Your task to perform on an android device: Open wifi settings Image 0: 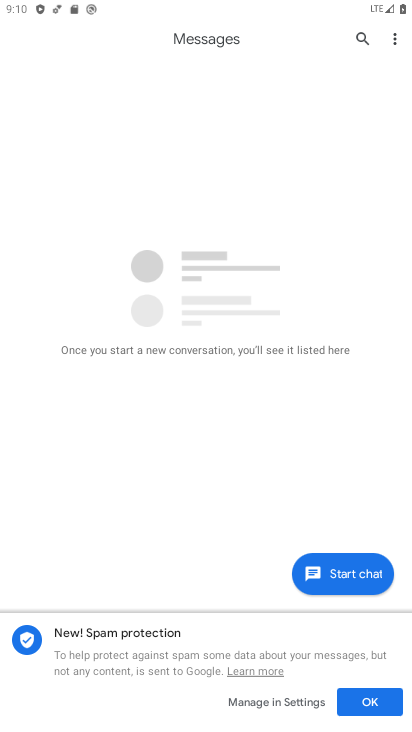
Step 0: press home button
Your task to perform on an android device: Open wifi settings Image 1: 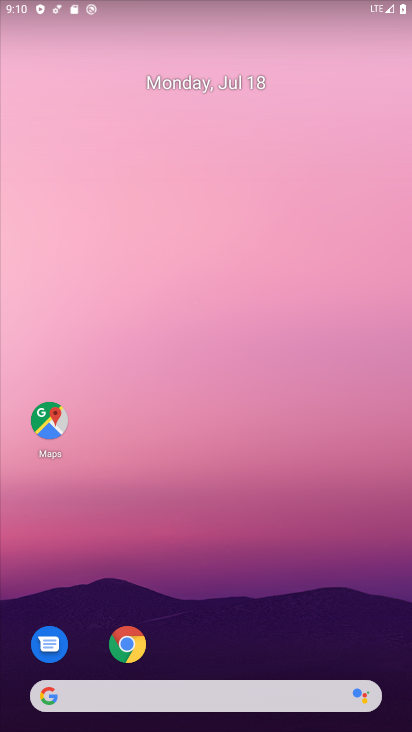
Step 1: drag from (346, 591) to (368, 203)
Your task to perform on an android device: Open wifi settings Image 2: 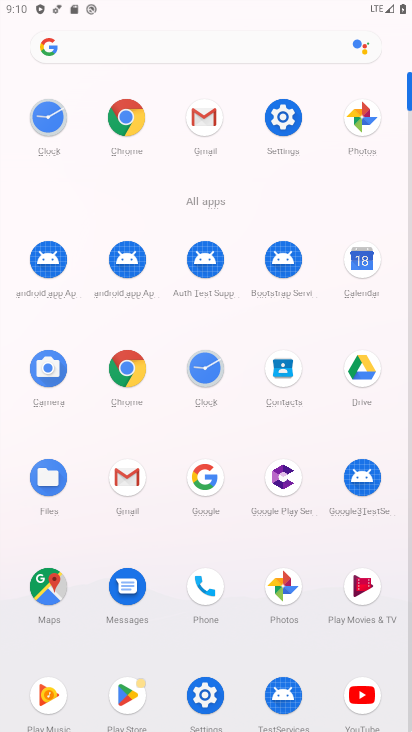
Step 2: click (287, 120)
Your task to perform on an android device: Open wifi settings Image 3: 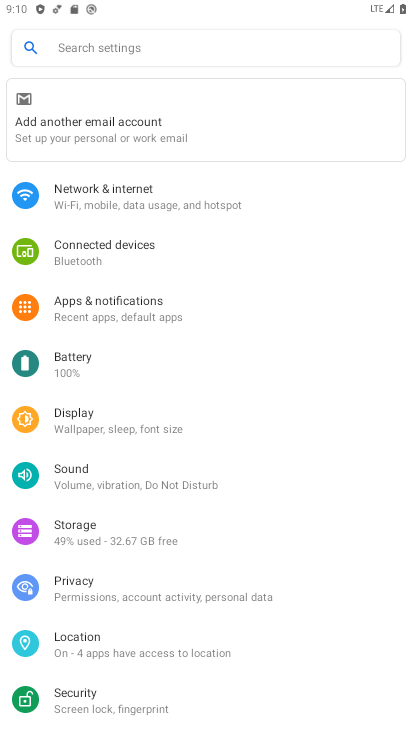
Step 3: drag from (316, 520) to (331, 429)
Your task to perform on an android device: Open wifi settings Image 4: 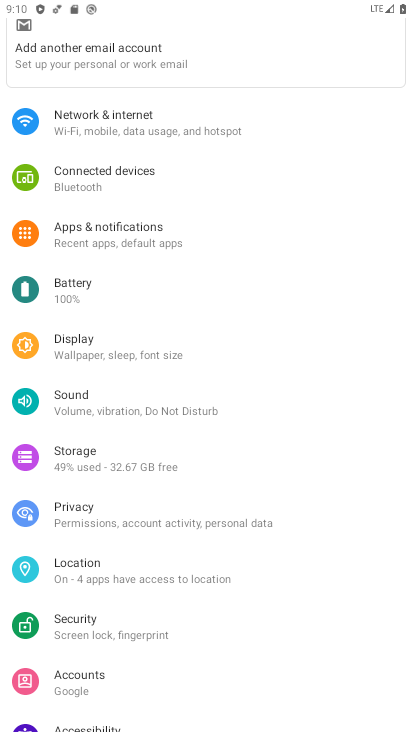
Step 4: drag from (316, 608) to (330, 490)
Your task to perform on an android device: Open wifi settings Image 5: 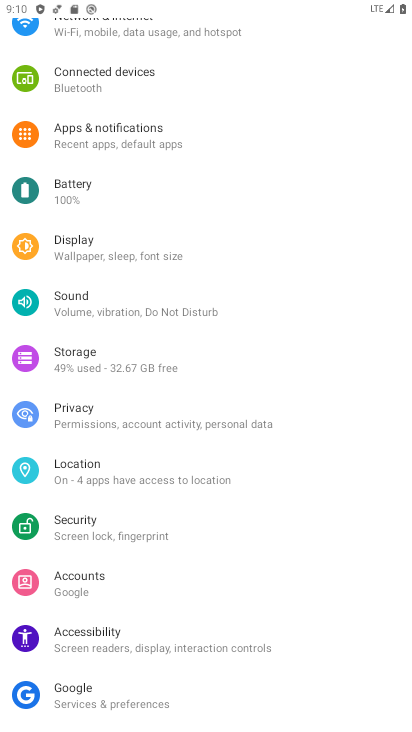
Step 5: drag from (330, 635) to (331, 552)
Your task to perform on an android device: Open wifi settings Image 6: 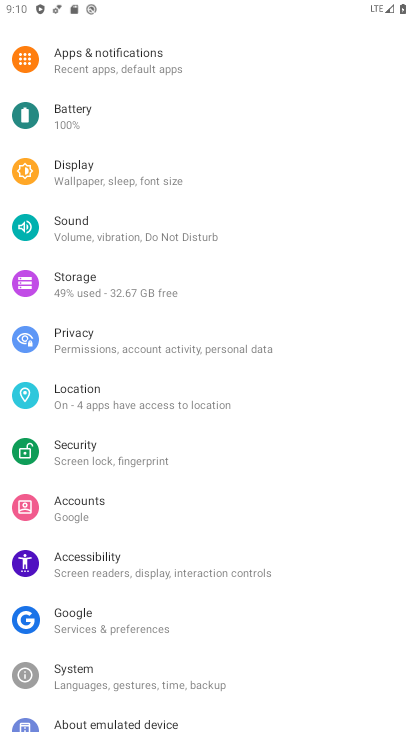
Step 6: drag from (337, 405) to (339, 538)
Your task to perform on an android device: Open wifi settings Image 7: 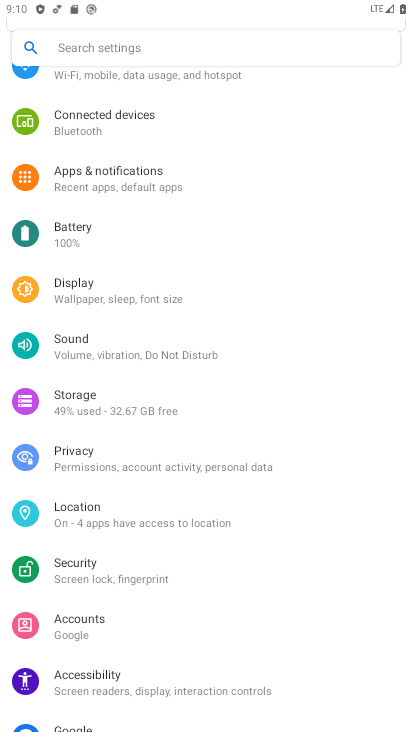
Step 7: drag from (335, 436) to (334, 560)
Your task to perform on an android device: Open wifi settings Image 8: 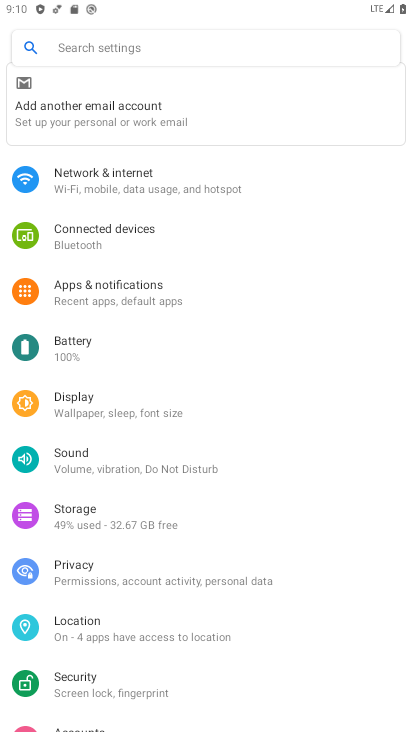
Step 8: drag from (313, 408) to (318, 546)
Your task to perform on an android device: Open wifi settings Image 9: 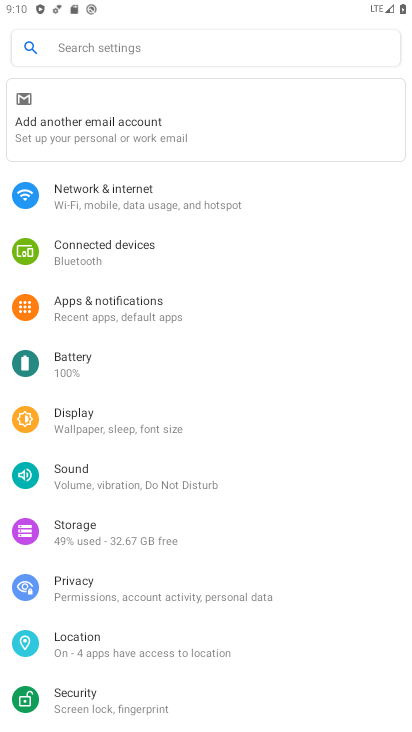
Step 9: click (215, 204)
Your task to perform on an android device: Open wifi settings Image 10: 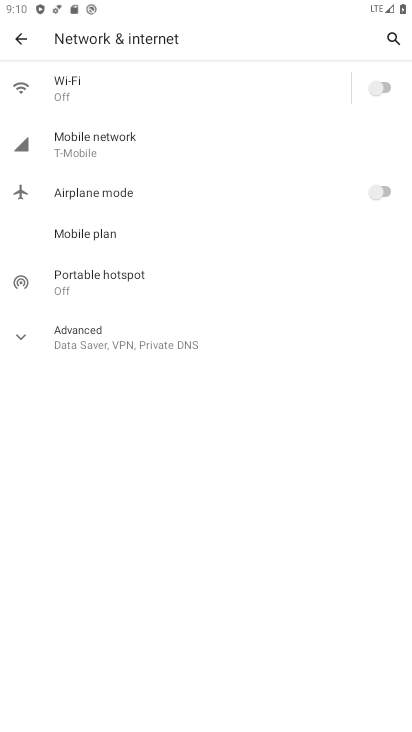
Step 10: click (87, 98)
Your task to perform on an android device: Open wifi settings Image 11: 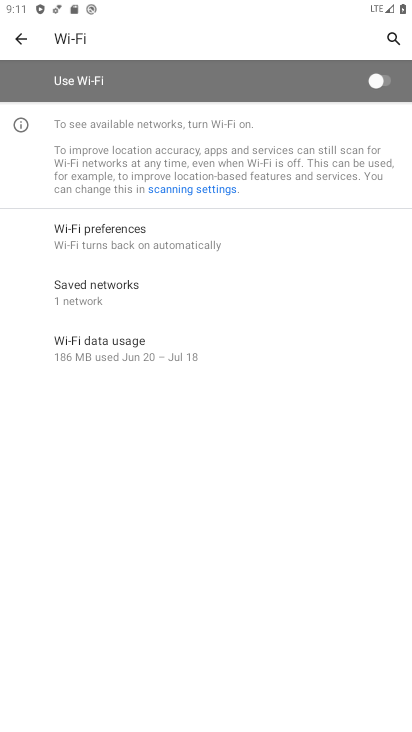
Step 11: task complete